Your task to perform on an android device: Open the calendar app, open the side menu, and click the "Day" option Image 0: 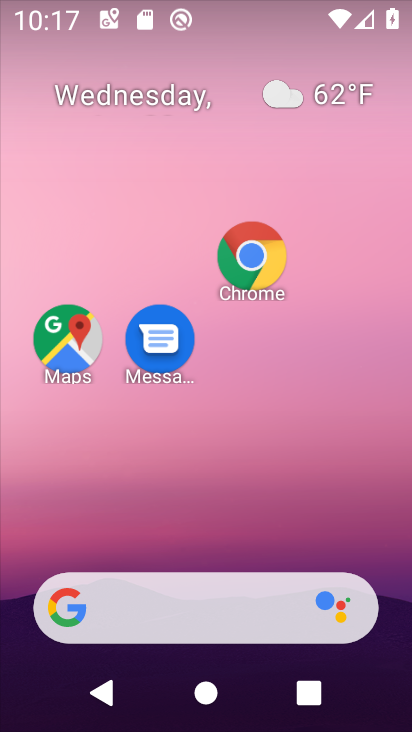
Step 0: drag from (239, 457) to (217, 8)
Your task to perform on an android device: Open the calendar app, open the side menu, and click the "Day" option Image 1: 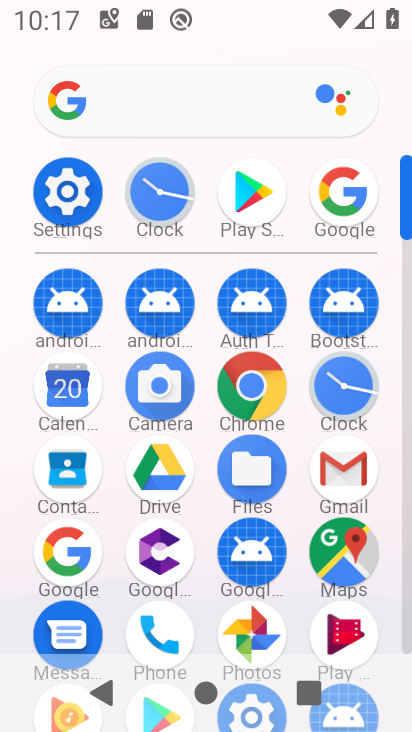
Step 1: click (67, 394)
Your task to perform on an android device: Open the calendar app, open the side menu, and click the "Day" option Image 2: 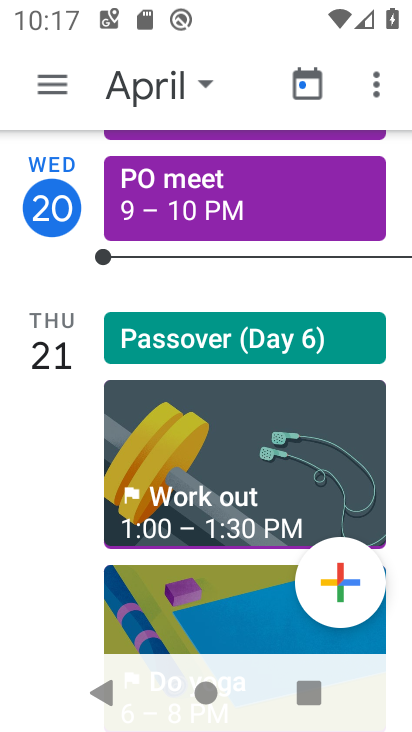
Step 2: click (51, 85)
Your task to perform on an android device: Open the calendar app, open the side menu, and click the "Day" option Image 3: 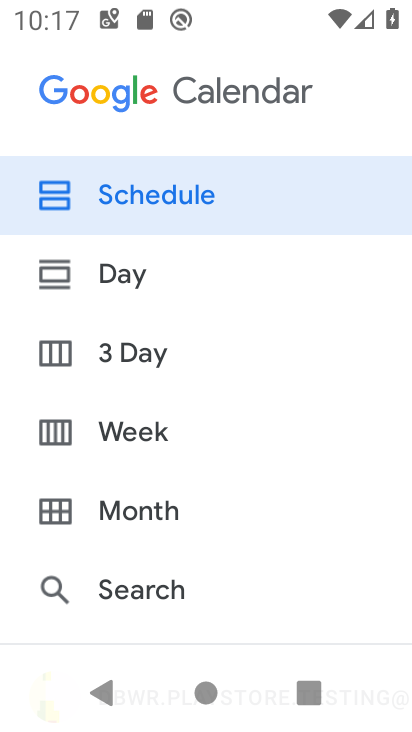
Step 3: click (132, 286)
Your task to perform on an android device: Open the calendar app, open the side menu, and click the "Day" option Image 4: 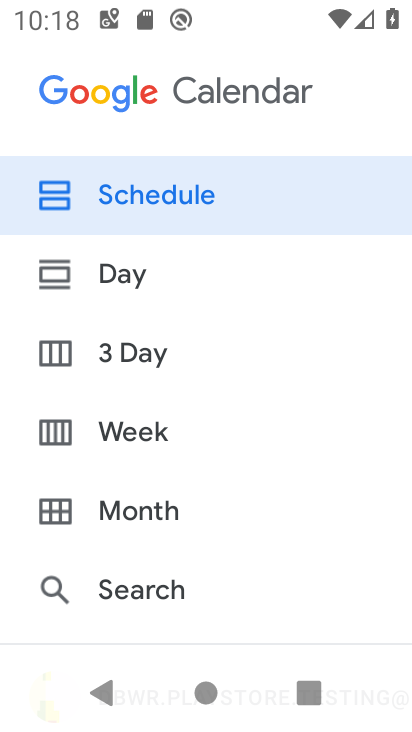
Step 4: click (139, 262)
Your task to perform on an android device: Open the calendar app, open the side menu, and click the "Day" option Image 5: 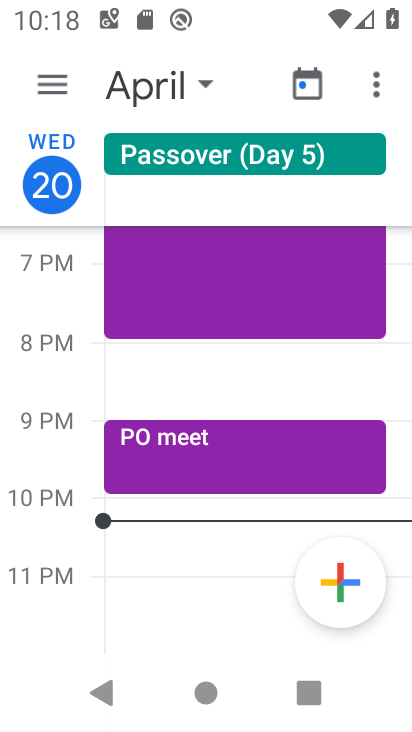
Step 5: task complete